Your task to perform on an android device: make emails show in primary in the gmail app Image 0: 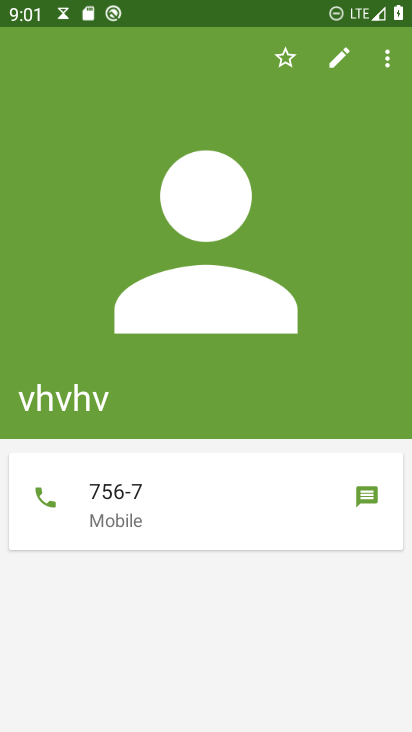
Step 0: press home button
Your task to perform on an android device: make emails show in primary in the gmail app Image 1: 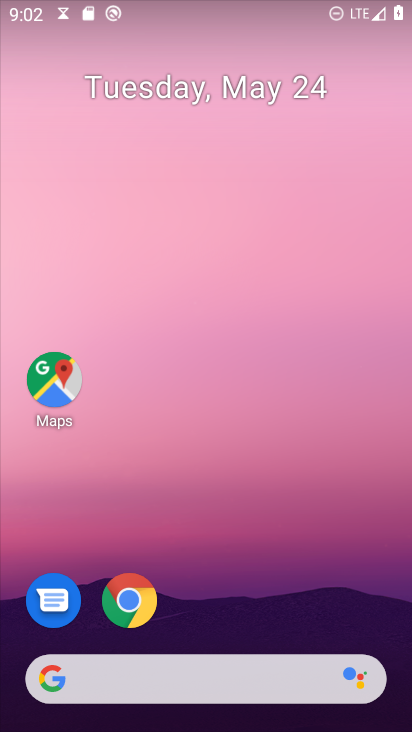
Step 1: drag from (289, 478) to (337, 114)
Your task to perform on an android device: make emails show in primary in the gmail app Image 2: 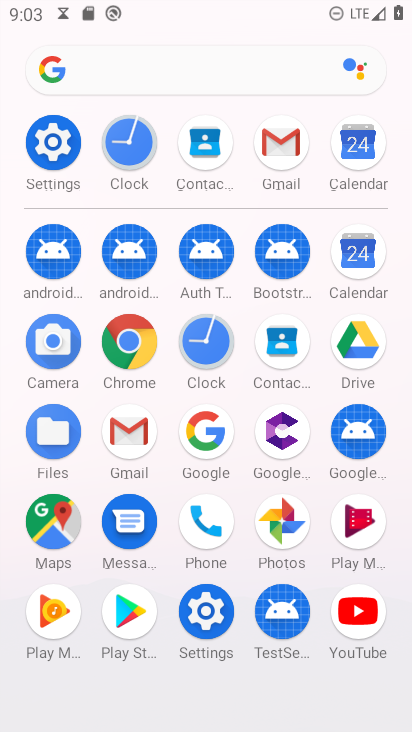
Step 2: click (289, 156)
Your task to perform on an android device: make emails show in primary in the gmail app Image 3: 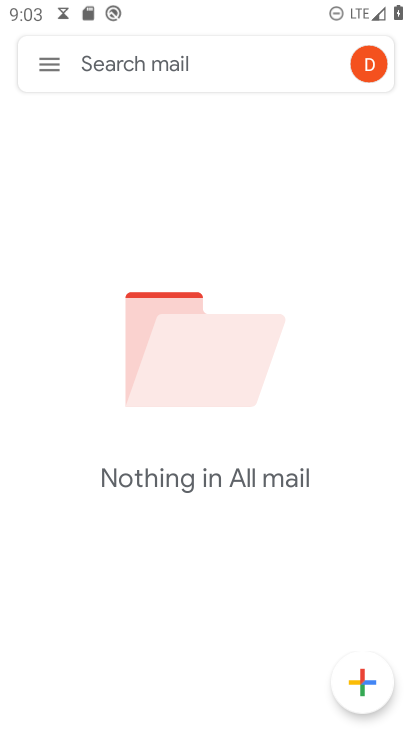
Step 3: click (50, 59)
Your task to perform on an android device: make emails show in primary in the gmail app Image 4: 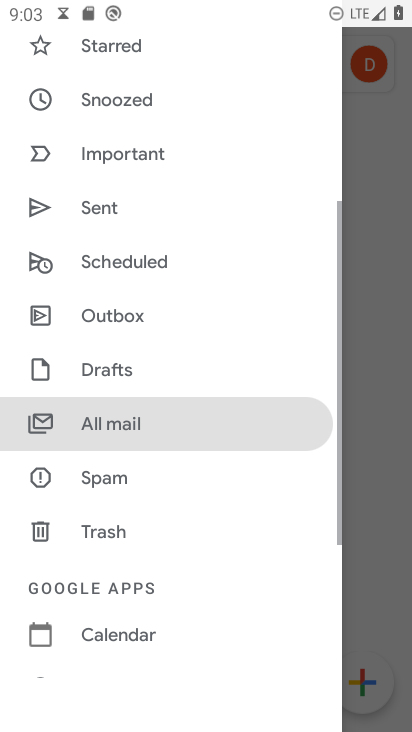
Step 4: drag from (121, 569) to (194, 46)
Your task to perform on an android device: make emails show in primary in the gmail app Image 5: 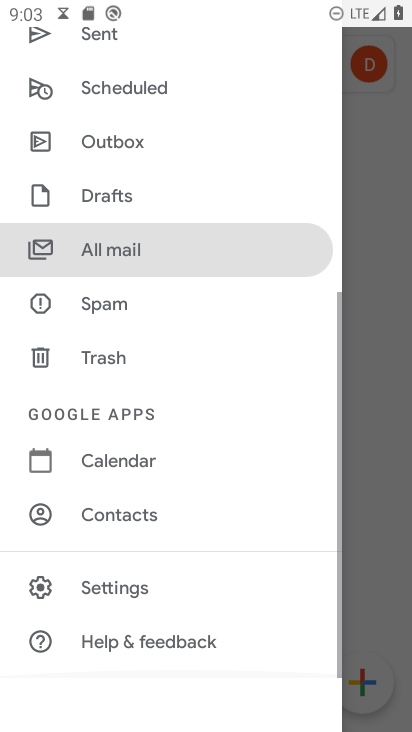
Step 5: click (139, 590)
Your task to perform on an android device: make emails show in primary in the gmail app Image 6: 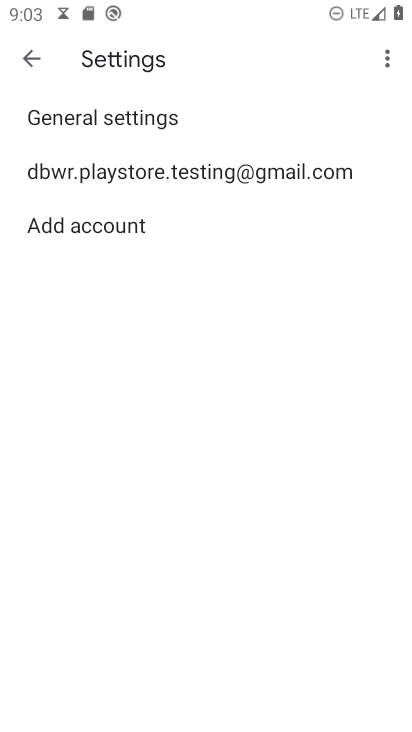
Step 6: click (127, 159)
Your task to perform on an android device: make emails show in primary in the gmail app Image 7: 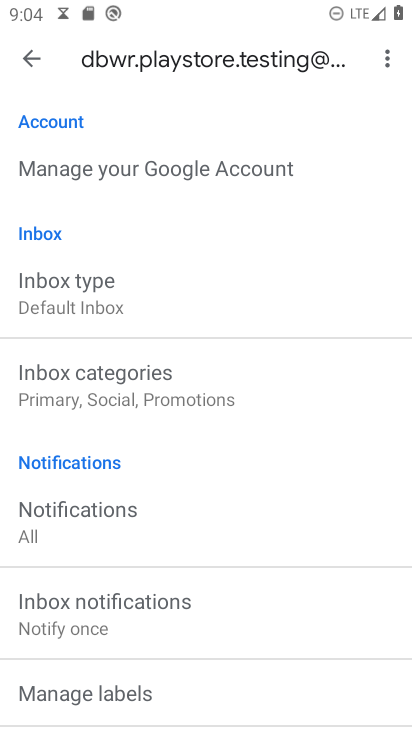
Step 7: click (110, 390)
Your task to perform on an android device: make emails show in primary in the gmail app Image 8: 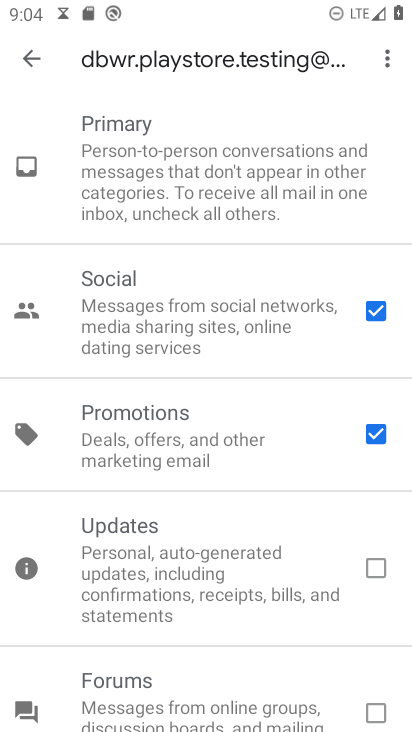
Step 8: drag from (255, 559) to (381, 17)
Your task to perform on an android device: make emails show in primary in the gmail app Image 9: 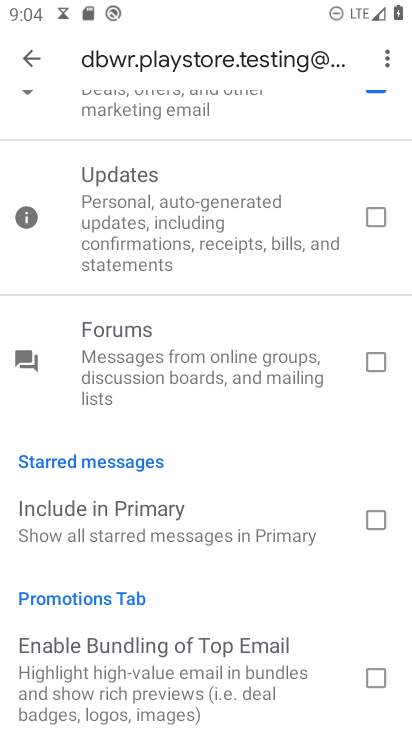
Step 9: click (371, 519)
Your task to perform on an android device: make emails show in primary in the gmail app Image 10: 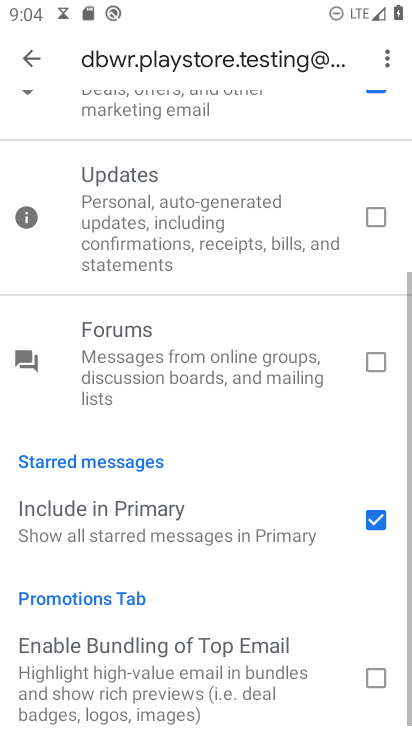
Step 10: task complete